Your task to perform on an android device: set default search engine in the chrome app Image 0: 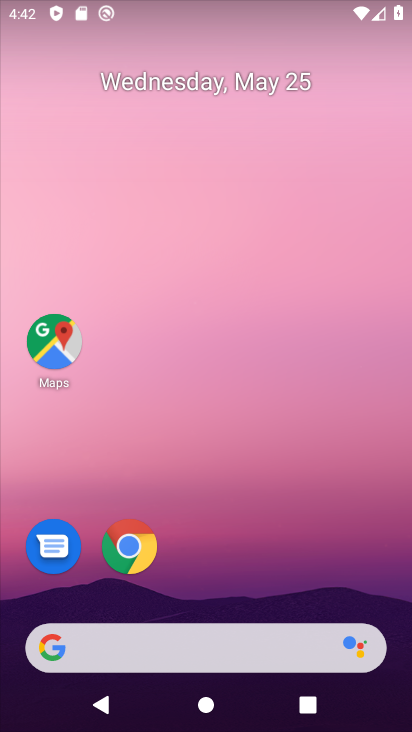
Step 0: click (126, 536)
Your task to perform on an android device: set default search engine in the chrome app Image 1: 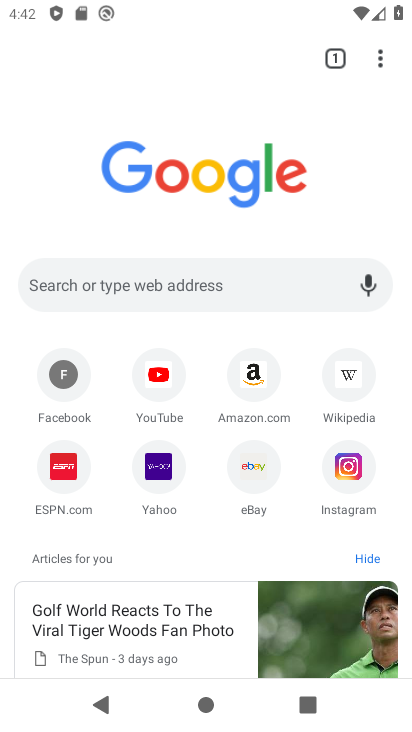
Step 1: click (381, 46)
Your task to perform on an android device: set default search engine in the chrome app Image 2: 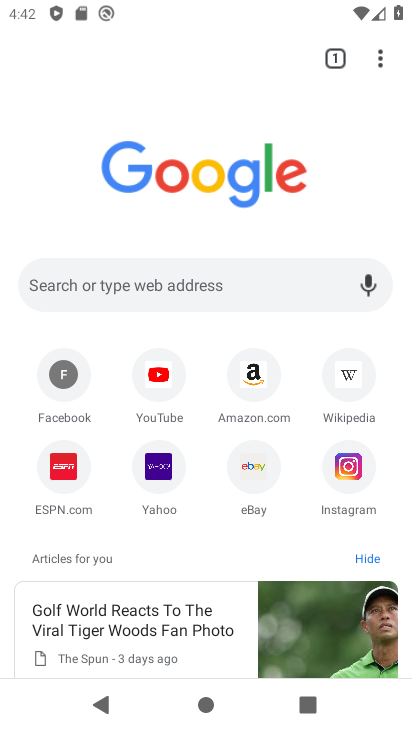
Step 2: click (377, 61)
Your task to perform on an android device: set default search engine in the chrome app Image 3: 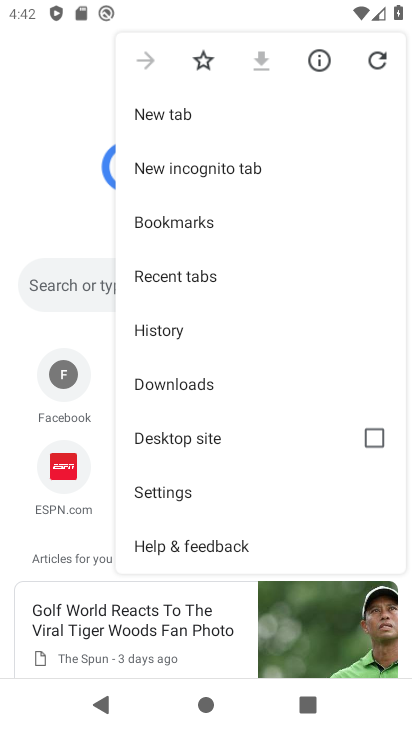
Step 3: click (227, 502)
Your task to perform on an android device: set default search engine in the chrome app Image 4: 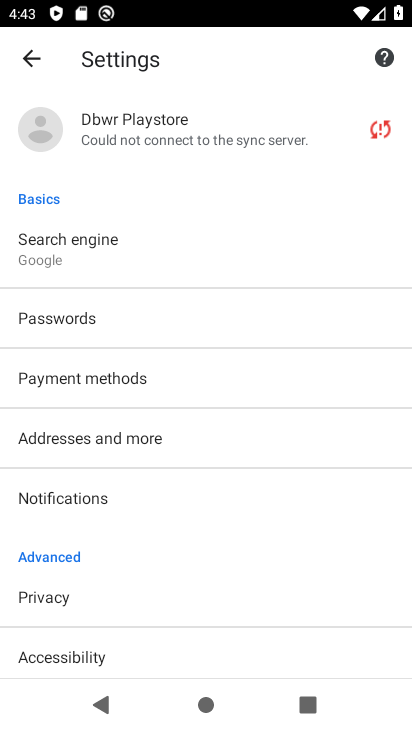
Step 4: click (52, 255)
Your task to perform on an android device: set default search engine in the chrome app Image 5: 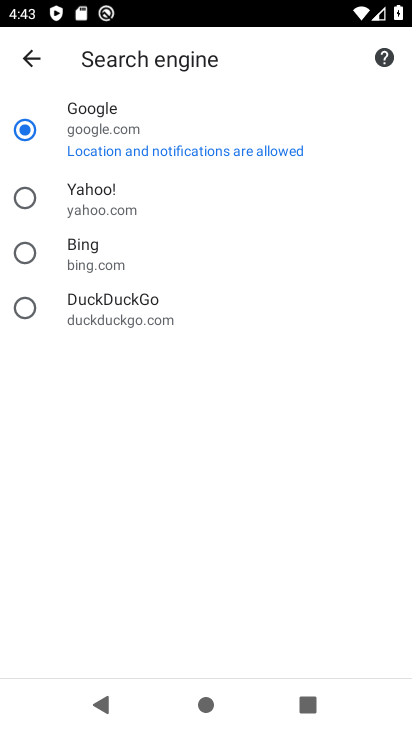
Step 5: task complete